Your task to perform on an android device: open a bookmark in the chrome app Image 0: 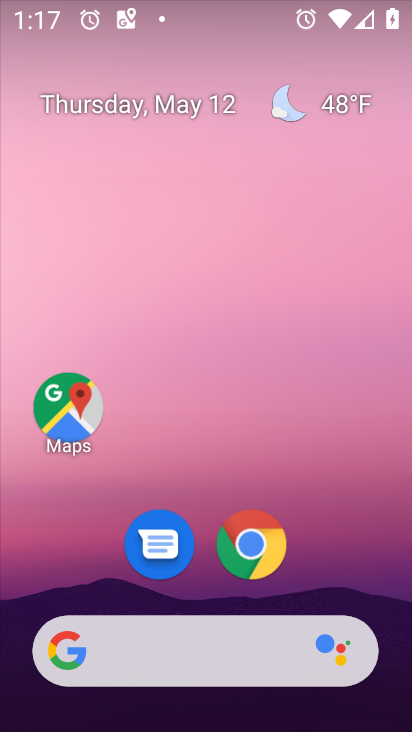
Step 0: drag from (332, 504) to (223, 23)
Your task to perform on an android device: open a bookmark in the chrome app Image 1: 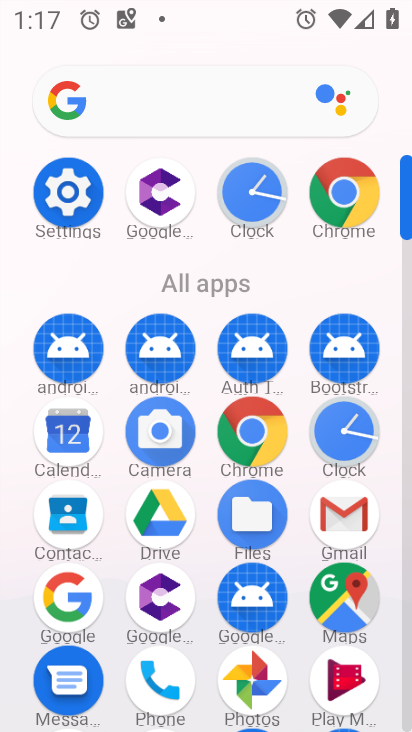
Step 1: drag from (15, 505) to (15, 214)
Your task to perform on an android device: open a bookmark in the chrome app Image 2: 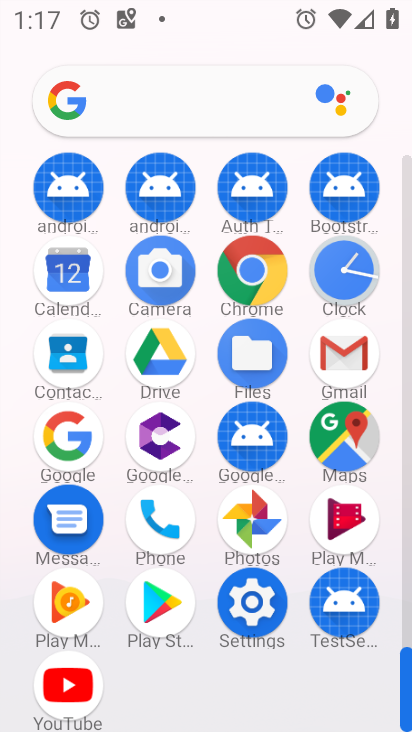
Step 2: click (250, 269)
Your task to perform on an android device: open a bookmark in the chrome app Image 3: 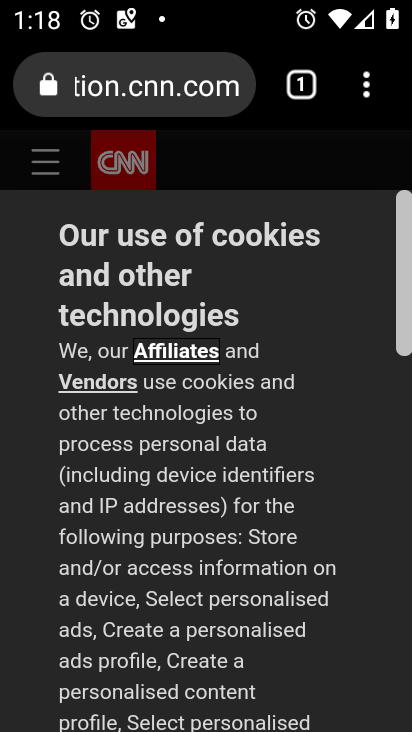
Step 3: drag from (363, 79) to (164, 597)
Your task to perform on an android device: open a bookmark in the chrome app Image 4: 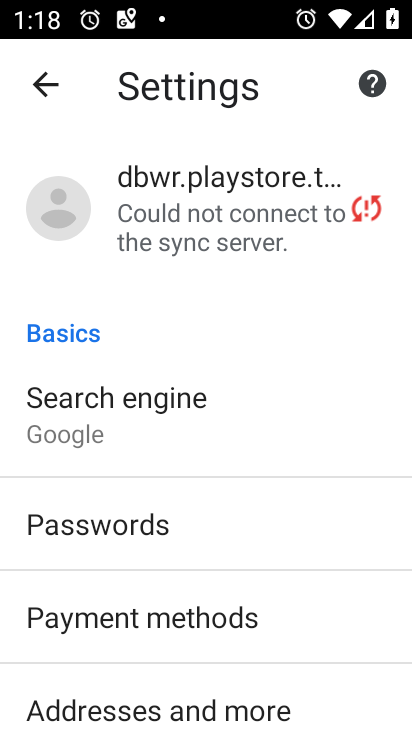
Step 4: drag from (187, 544) to (238, 217)
Your task to perform on an android device: open a bookmark in the chrome app Image 5: 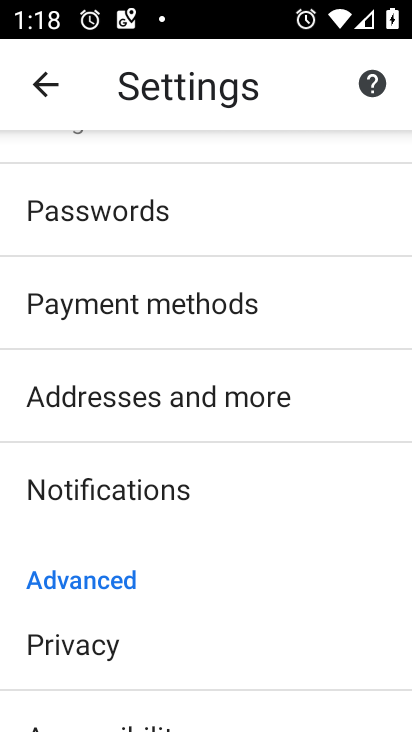
Step 5: drag from (218, 558) to (264, 189)
Your task to perform on an android device: open a bookmark in the chrome app Image 6: 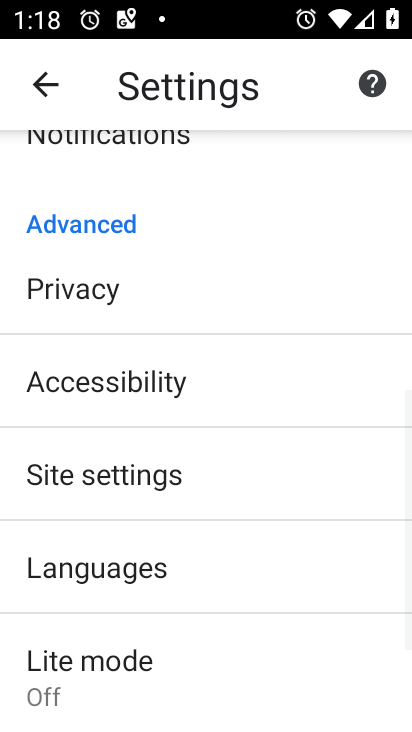
Step 6: drag from (162, 598) to (229, 292)
Your task to perform on an android device: open a bookmark in the chrome app Image 7: 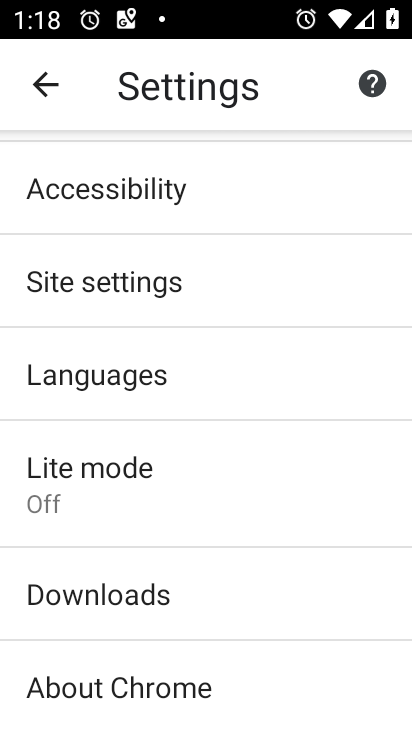
Step 7: click (43, 76)
Your task to perform on an android device: open a bookmark in the chrome app Image 8: 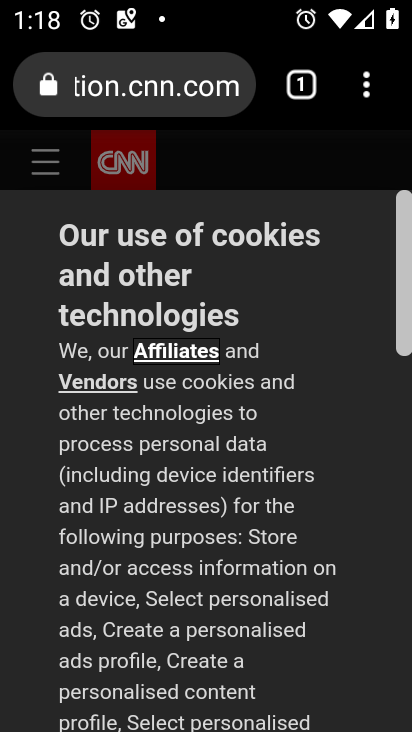
Step 8: task complete